Your task to perform on an android device: See recent photos Image 0: 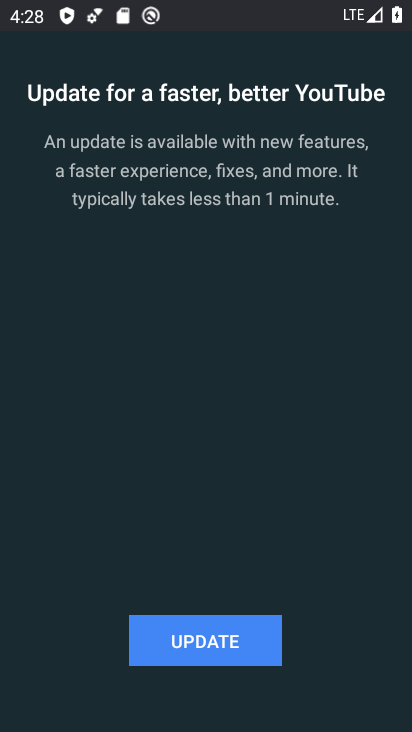
Step 0: press home button
Your task to perform on an android device: See recent photos Image 1: 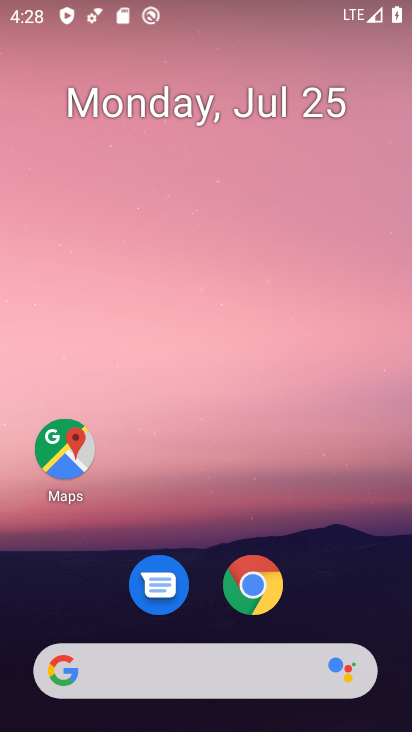
Step 1: drag from (309, 554) to (269, 3)
Your task to perform on an android device: See recent photos Image 2: 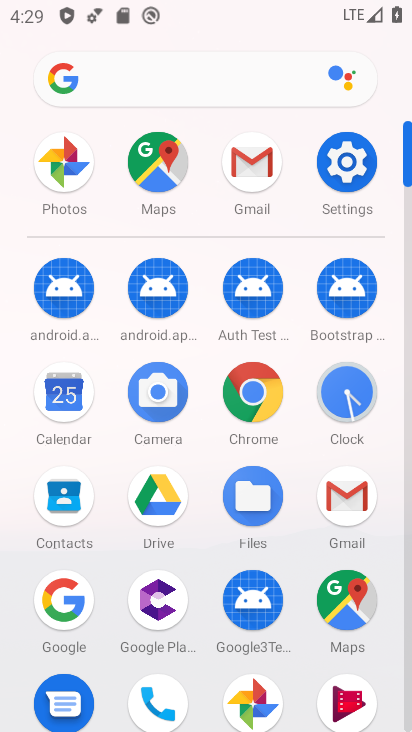
Step 2: drag from (298, 490) to (294, 273)
Your task to perform on an android device: See recent photos Image 3: 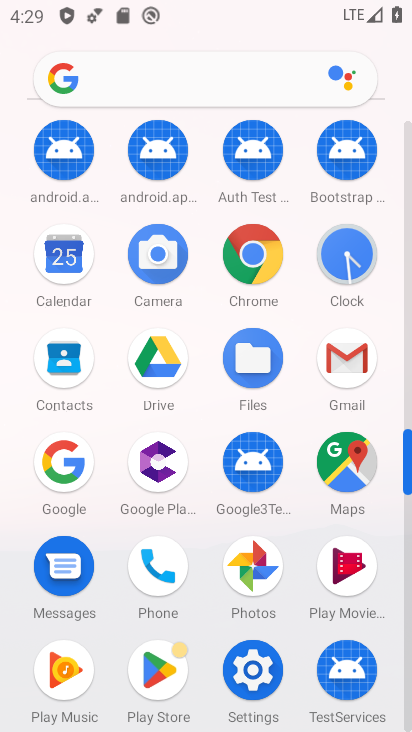
Step 3: click (258, 555)
Your task to perform on an android device: See recent photos Image 4: 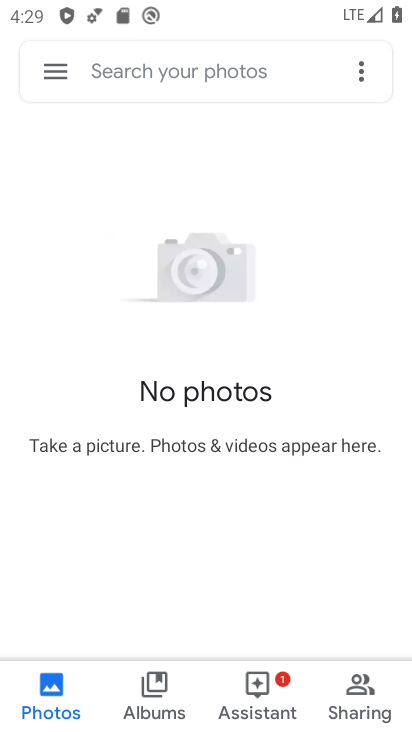
Step 4: task complete